Your task to perform on an android device: Open Chrome and go to settings Image 0: 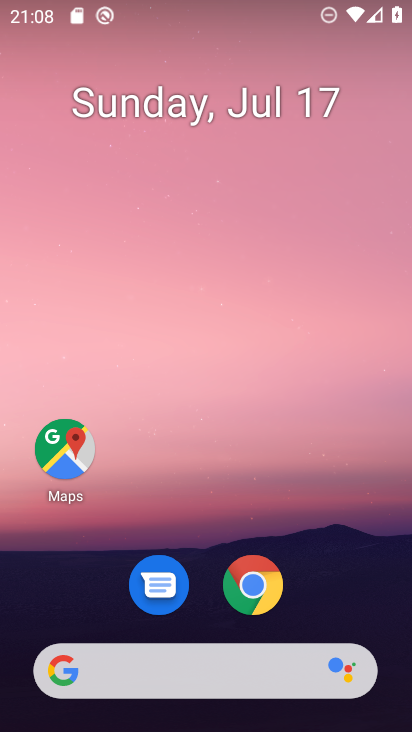
Step 0: click (247, 589)
Your task to perform on an android device: Open Chrome and go to settings Image 1: 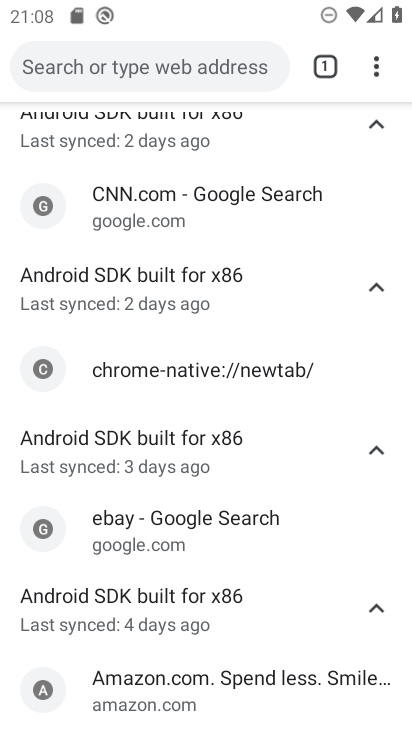
Step 1: task complete